Your task to perform on an android device: Go to network settings Image 0: 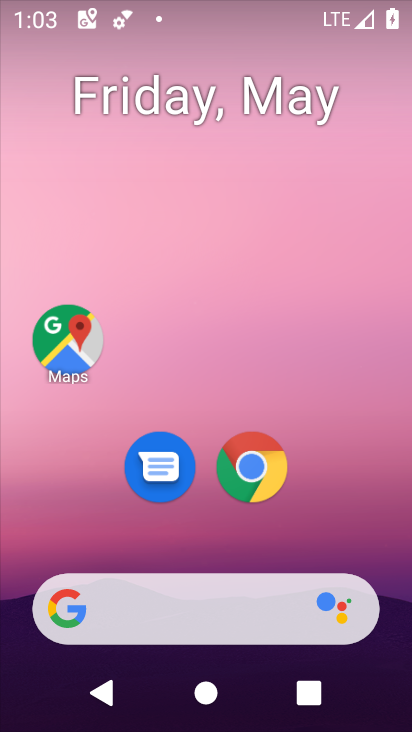
Step 0: drag from (355, 453) to (376, 2)
Your task to perform on an android device: Go to network settings Image 1: 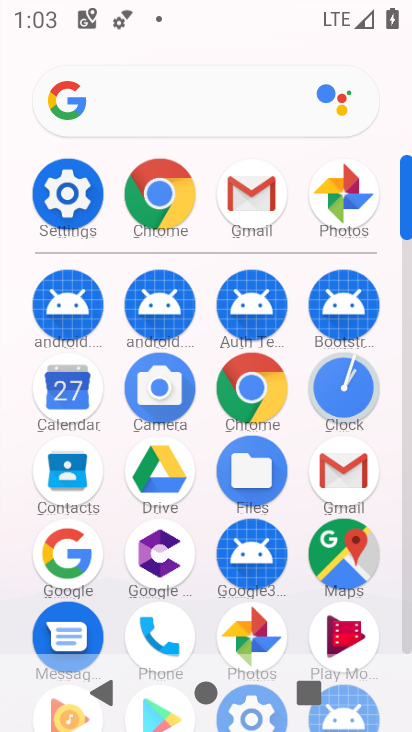
Step 1: click (58, 201)
Your task to perform on an android device: Go to network settings Image 2: 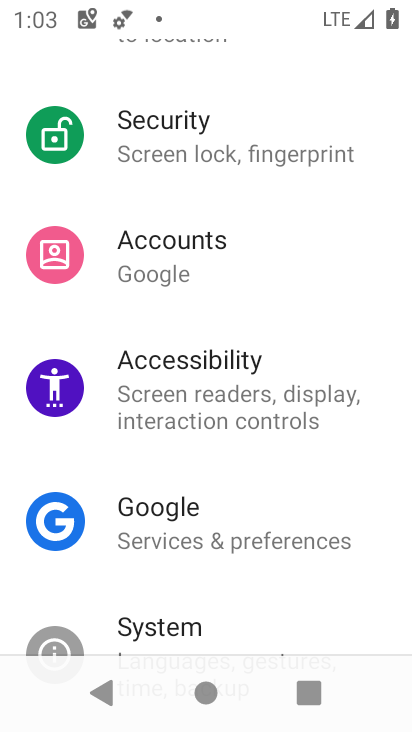
Step 2: drag from (249, 175) to (267, 579)
Your task to perform on an android device: Go to network settings Image 3: 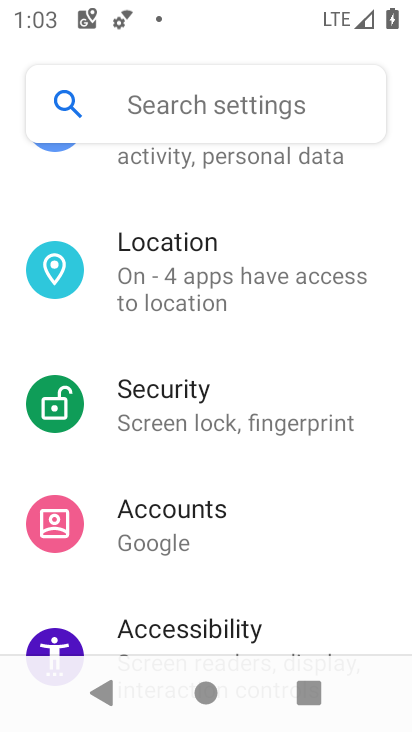
Step 3: drag from (255, 276) to (258, 629)
Your task to perform on an android device: Go to network settings Image 4: 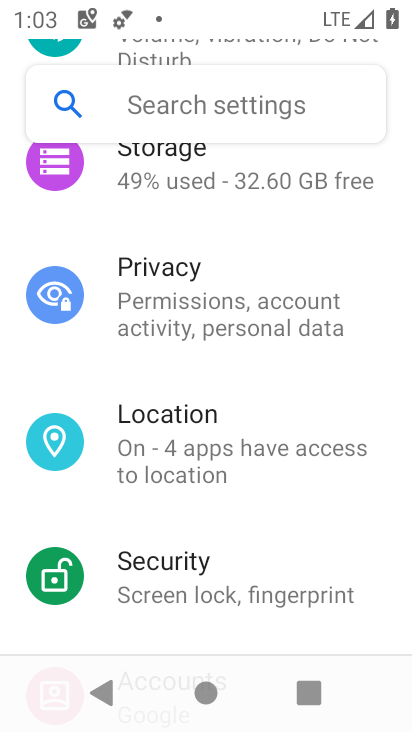
Step 4: drag from (251, 187) to (240, 598)
Your task to perform on an android device: Go to network settings Image 5: 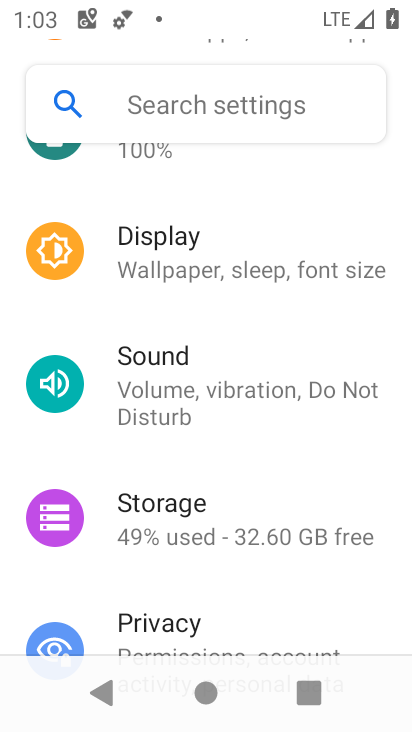
Step 5: drag from (279, 200) to (254, 624)
Your task to perform on an android device: Go to network settings Image 6: 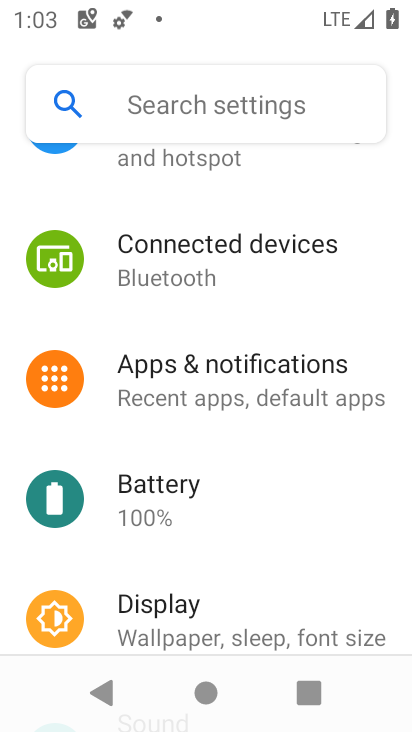
Step 6: drag from (228, 595) to (234, 636)
Your task to perform on an android device: Go to network settings Image 7: 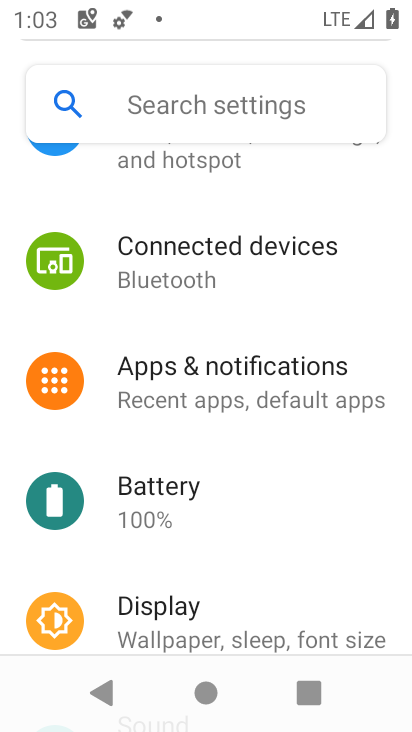
Step 7: drag from (283, 207) to (257, 643)
Your task to perform on an android device: Go to network settings Image 8: 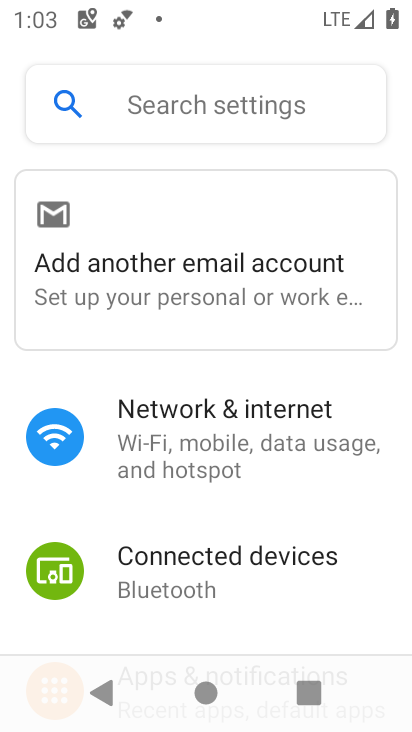
Step 8: drag from (231, 410) to (243, 566)
Your task to perform on an android device: Go to network settings Image 9: 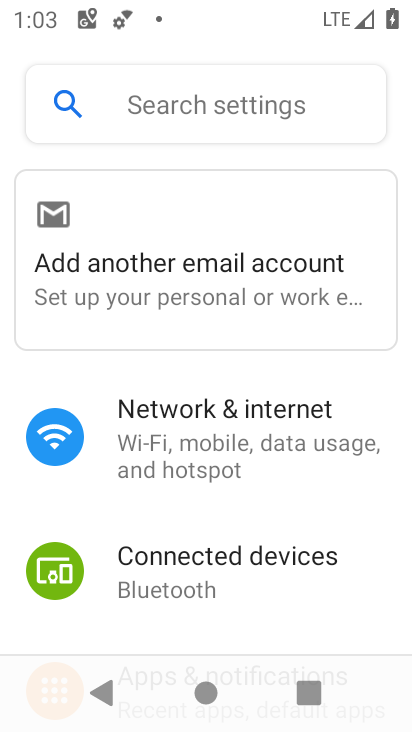
Step 9: click (179, 441)
Your task to perform on an android device: Go to network settings Image 10: 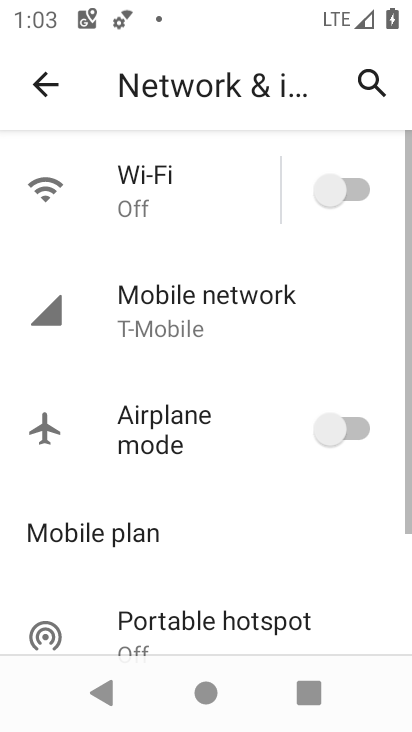
Step 10: task complete